Your task to perform on an android device: Show me the alarms in the clock app Image 0: 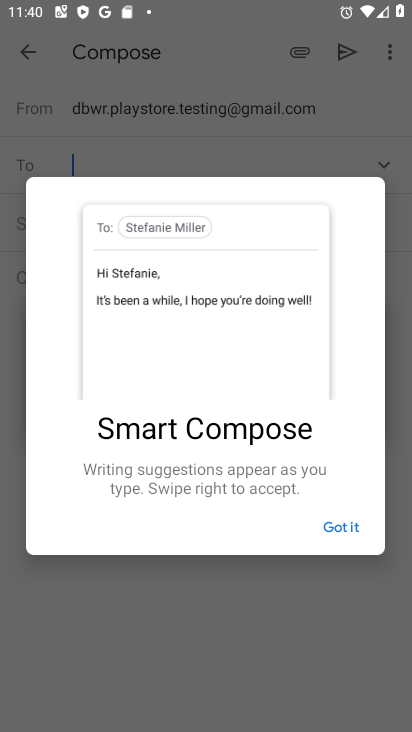
Step 0: press home button
Your task to perform on an android device: Show me the alarms in the clock app Image 1: 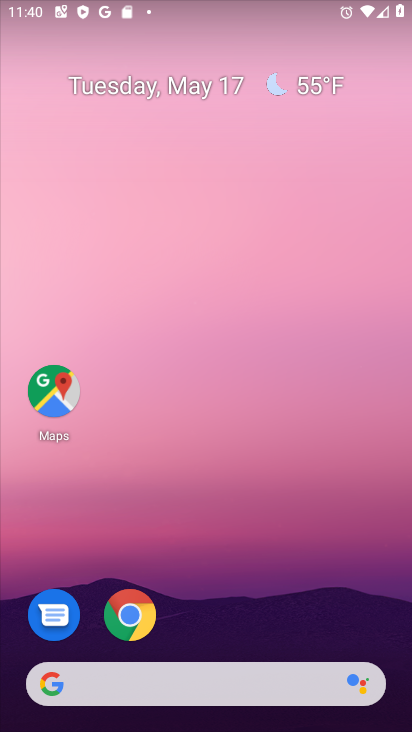
Step 1: drag from (268, 556) to (256, 99)
Your task to perform on an android device: Show me the alarms in the clock app Image 2: 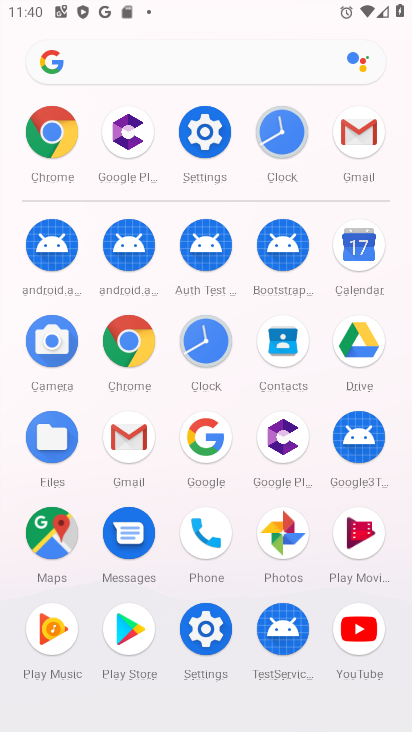
Step 2: click (208, 346)
Your task to perform on an android device: Show me the alarms in the clock app Image 3: 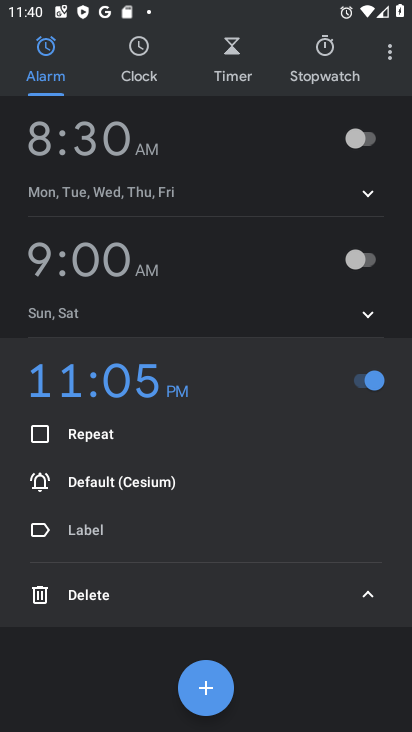
Step 3: task complete